Your task to perform on an android device: Open Google Chrome and click the shortcut for Amazon.com Image 0: 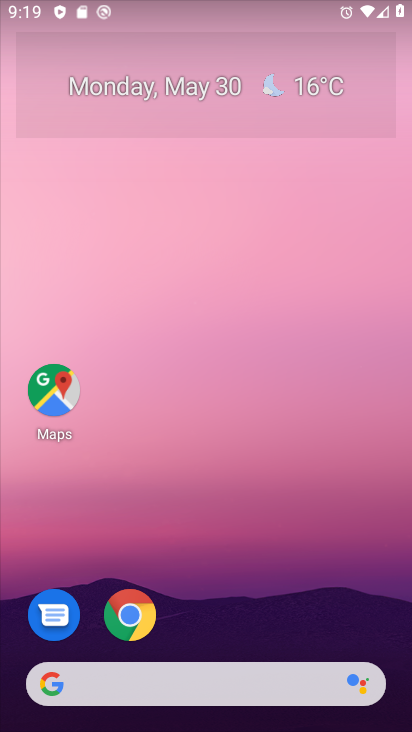
Step 0: click (127, 609)
Your task to perform on an android device: Open Google Chrome and click the shortcut for Amazon.com Image 1: 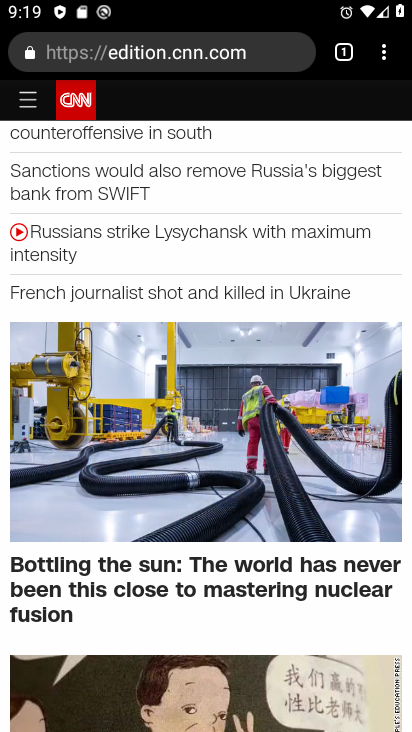
Step 1: click (340, 46)
Your task to perform on an android device: Open Google Chrome and click the shortcut for Amazon.com Image 2: 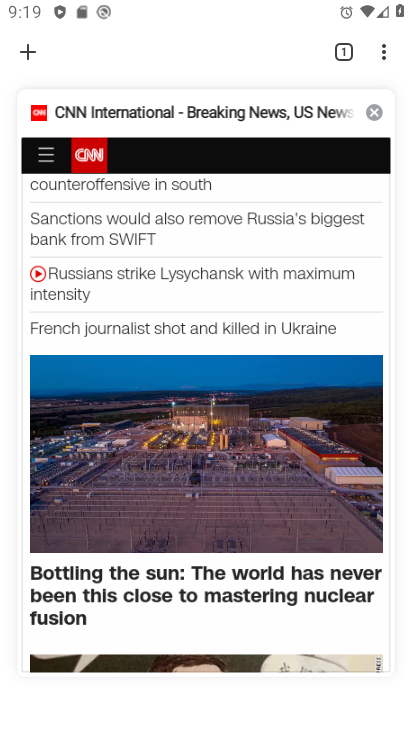
Step 2: click (26, 47)
Your task to perform on an android device: Open Google Chrome and click the shortcut for Amazon.com Image 3: 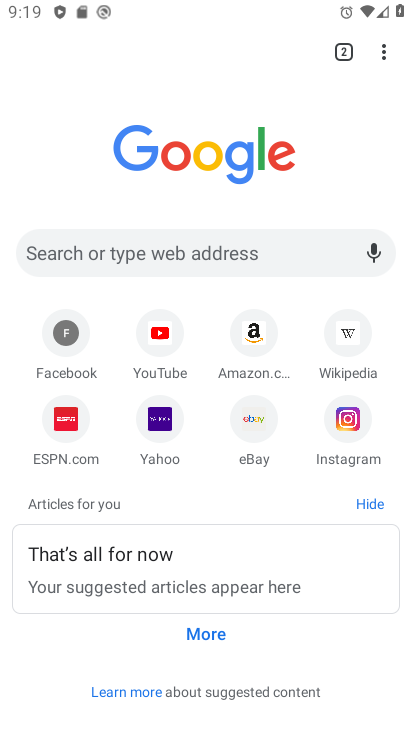
Step 3: click (257, 340)
Your task to perform on an android device: Open Google Chrome and click the shortcut for Amazon.com Image 4: 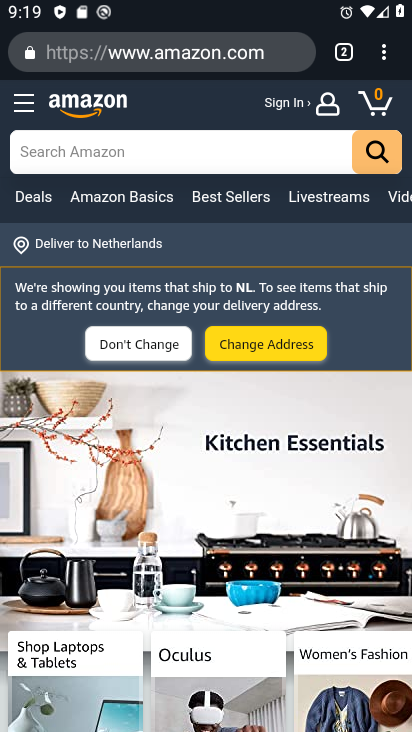
Step 4: task complete